Your task to perform on an android device: turn notification dots off Image 0: 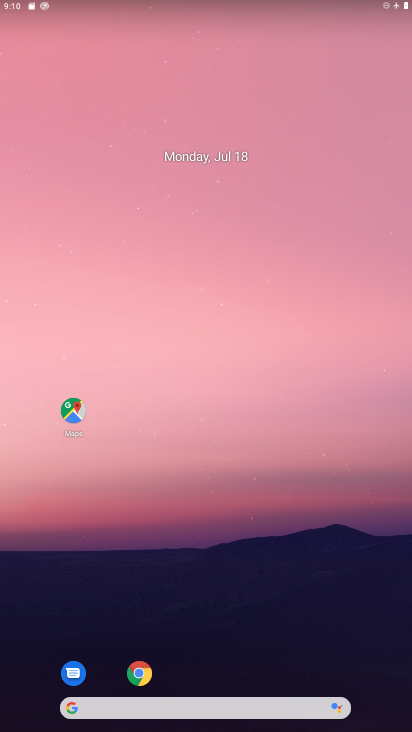
Step 0: press home button
Your task to perform on an android device: turn notification dots off Image 1: 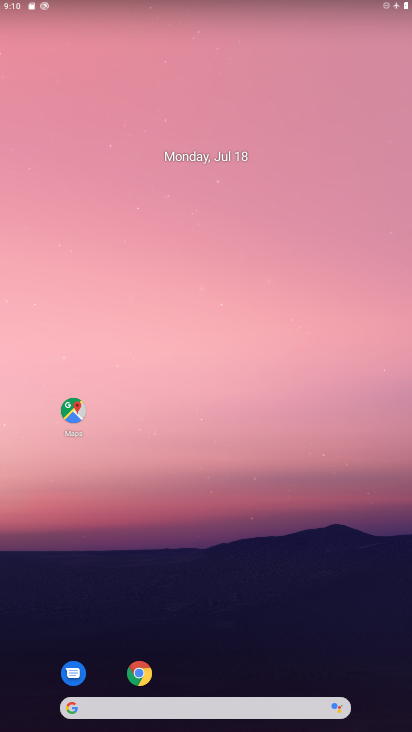
Step 1: drag from (252, 635) to (323, 67)
Your task to perform on an android device: turn notification dots off Image 2: 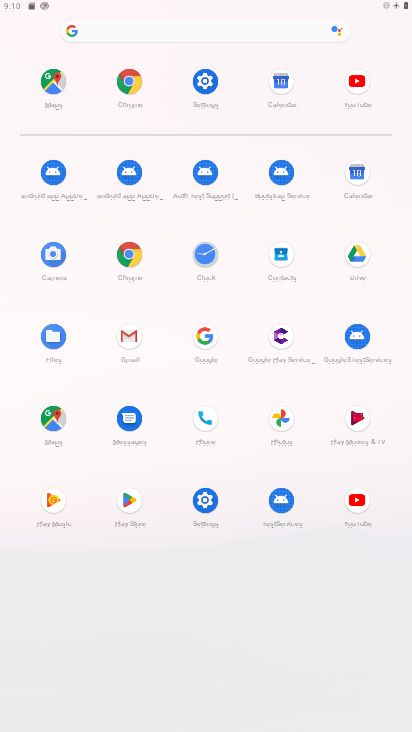
Step 2: click (197, 81)
Your task to perform on an android device: turn notification dots off Image 3: 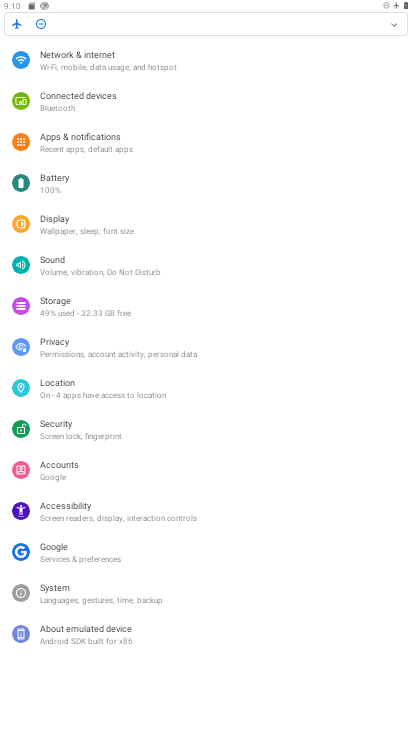
Step 3: click (76, 148)
Your task to perform on an android device: turn notification dots off Image 4: 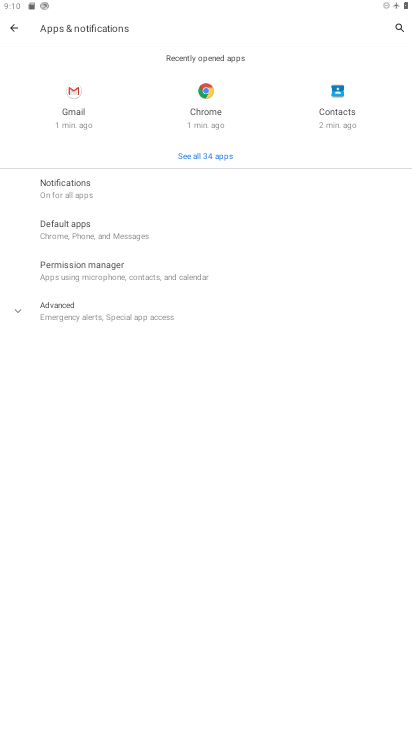
Step 4: click (72, 189)
Your task to perform on an android device: turn notification dots off Image 5: 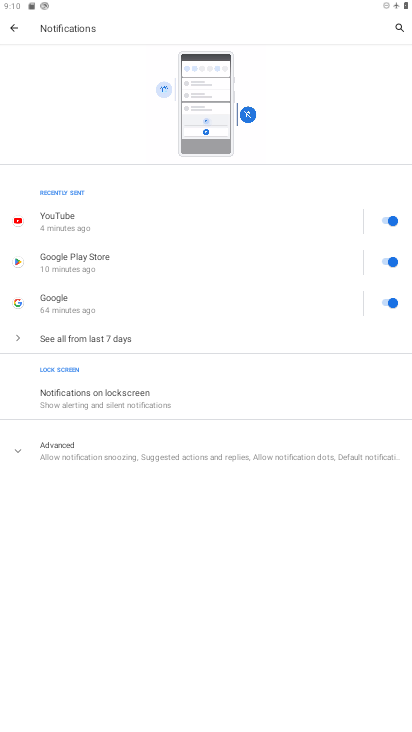
Step 5: click (50, 444)
Your task to perform on an android device: turn notification dots off Image 6: 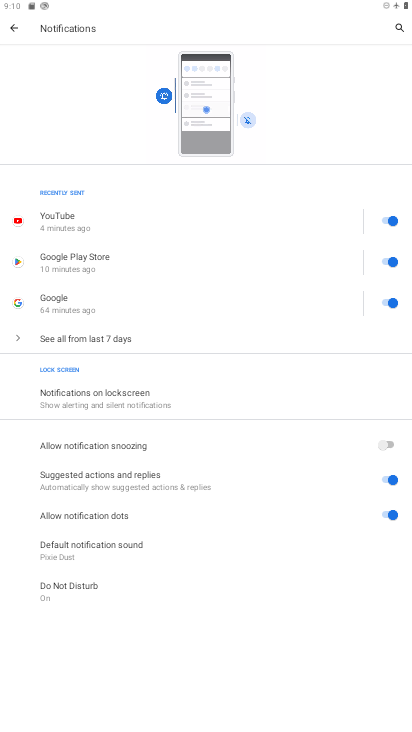
Step 6: click (390, 511)
Your task to perform on an android device: turn notification dots off Image 7: 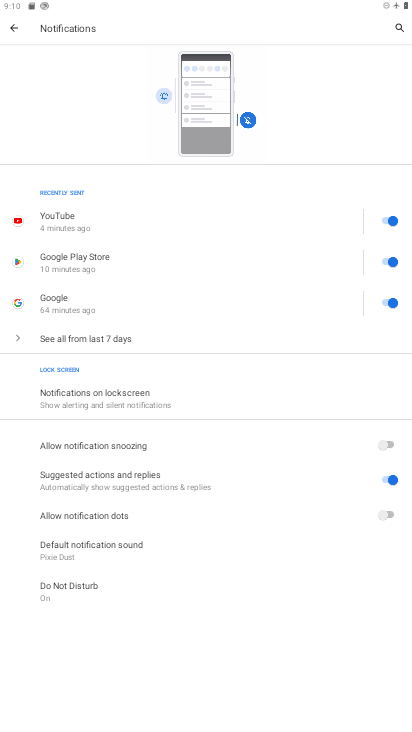
Step 7: task complete